Your task to perform on an android device: all mails in gmail Image 0: 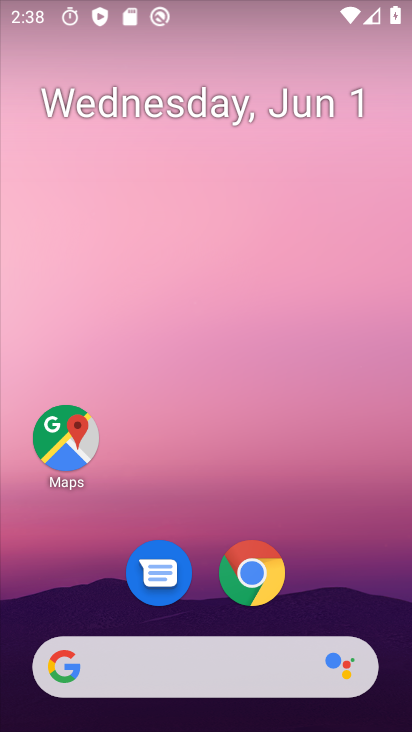
Step 0: drag from (205, 623) to (163, 241)
Your task to perform on an android device: all mails in gmail Image 1: 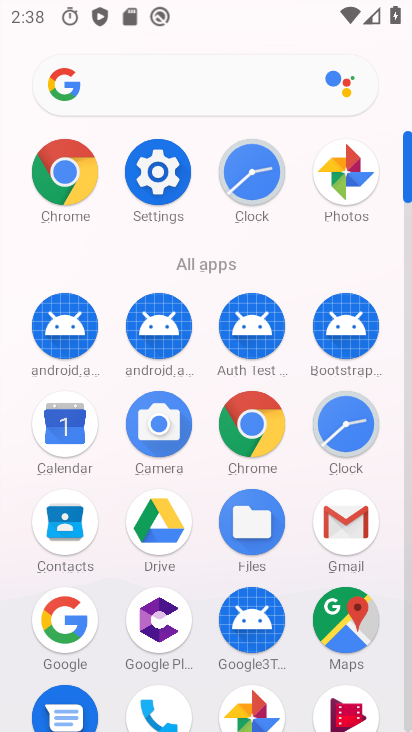
Step 1: click (346, 519)
Your task to perform on an android device: all mails in gmail Image 2: 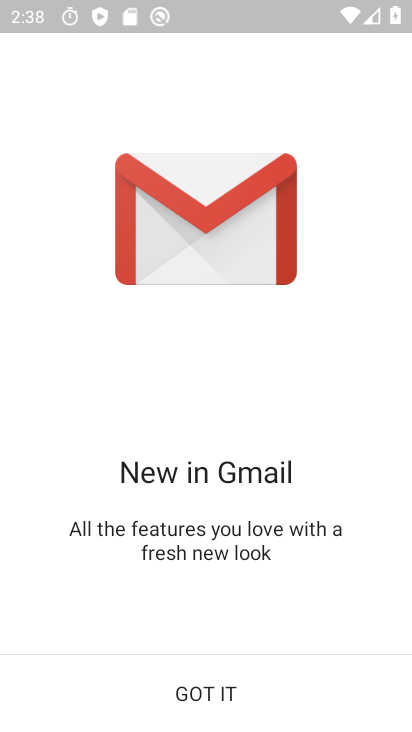
Step 2: click (246, 695)
Your task to perform on an android device: all mails in gmail Image 3: 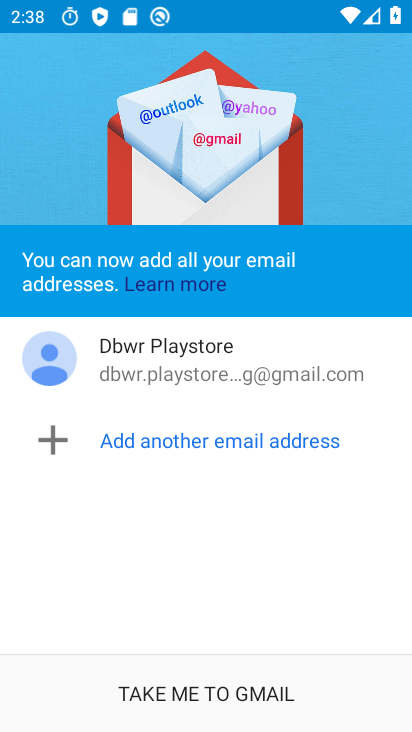
Step 3: click (238, 685)
Your task to perform on an android device: all mails in gmail Image 4: 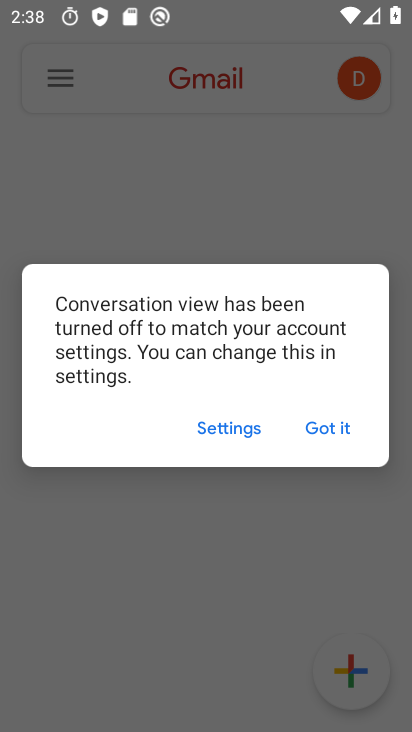
Step 4: click (301, 427)
Your task to perform on an android device: all mails in gmail Image 5: 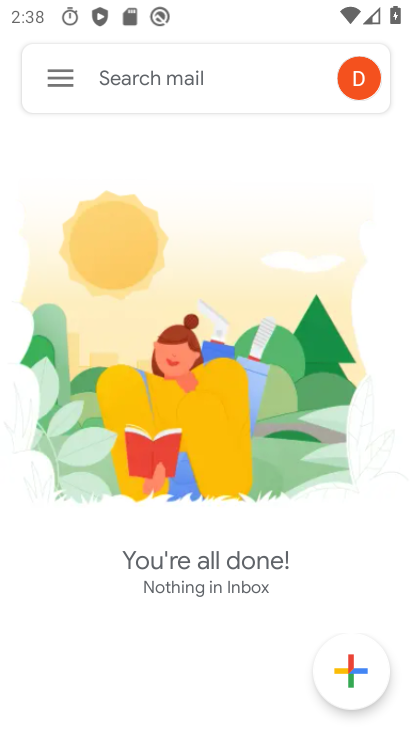
Step 5: click (60, 83)
Your task to perform on an android device: all mails in gmail Image 6: 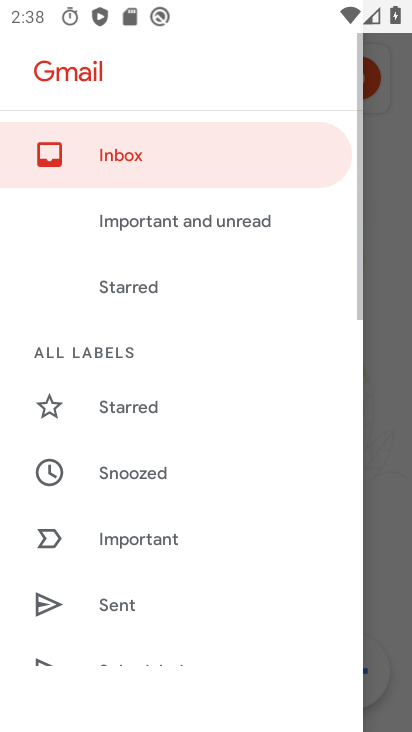
Step 6: drag from (181, 556) to (208, 178)
Your task to perform on an android device: all mails in gmail Image 7: 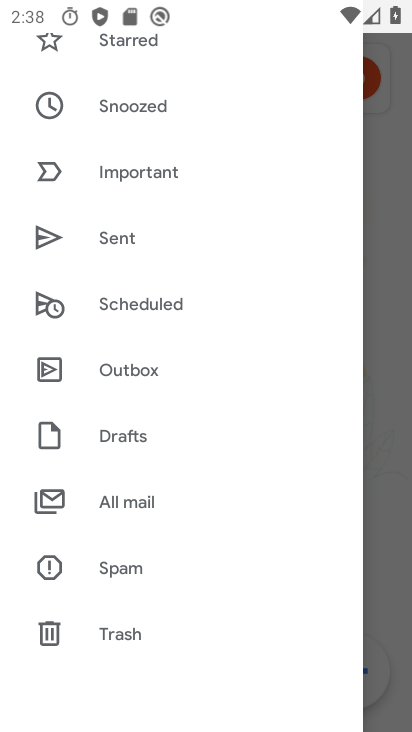
Step 7: click (157, 506)
Your task to perform on an android device: all mails in gmail Image 8: 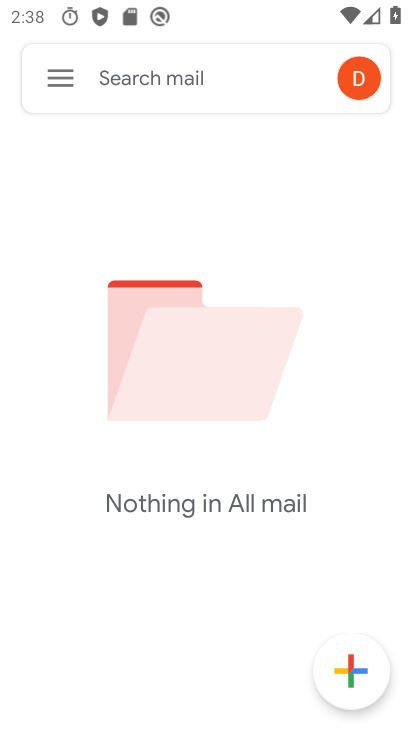
Step 8: task complete